Your task to perform on an android device: Set the phone to "Do not disturb". Image 0: 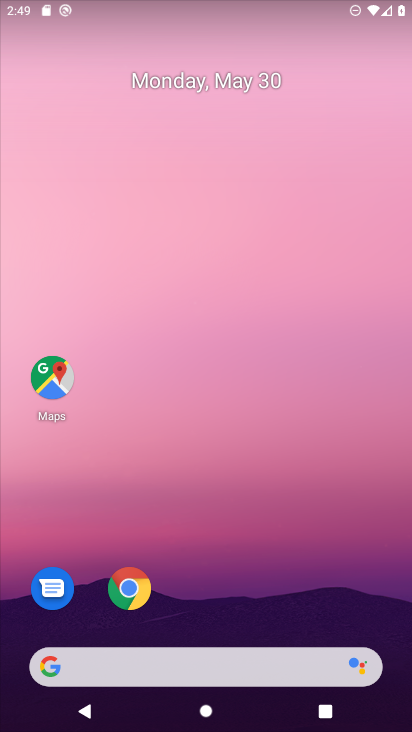
Step 0: drag from (166, 9) to (185, 257)
Your task to perform on an android device: Set the phone to "Do not disturb". Image 1: 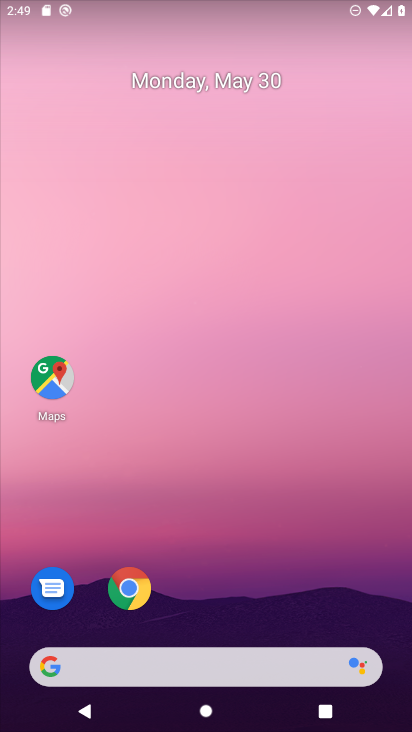
Step 1: drag from (190, 7) to (107, 618)
Your task to perform on an android device: Set the phone to "Do not disturb". Image 2: 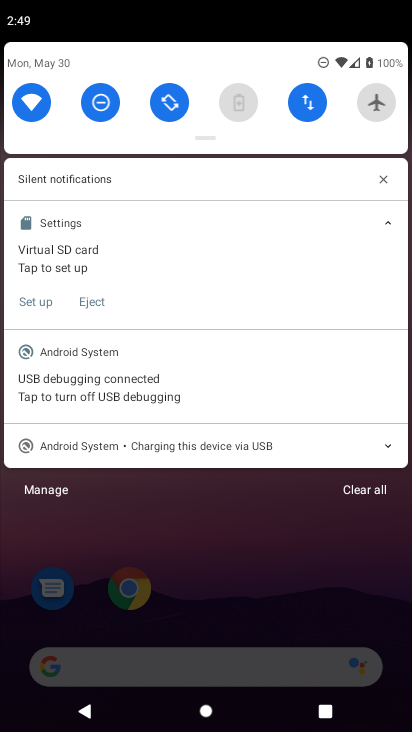
Step 2: click (92, 95)
Your task to perform on an android device: Set the phone to "Do not disturb". Image 3: 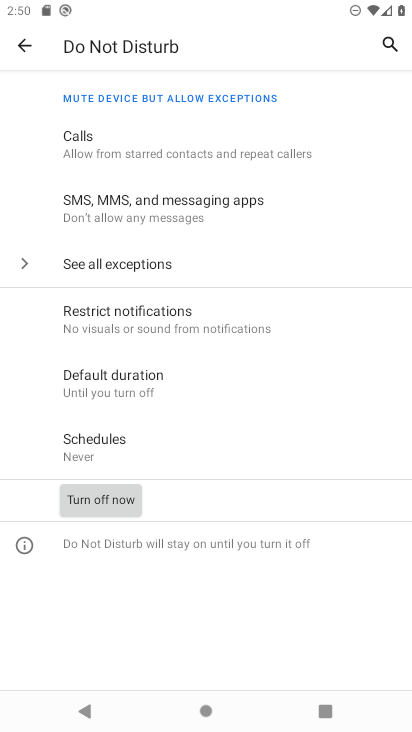
Step 3: task complete